Your task to perform on an android device: Search for pizza restaurants on Maps Image 0: 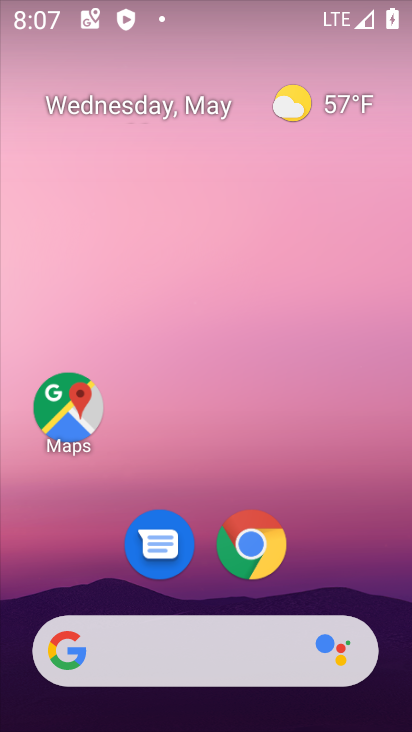
Step 0: drag from (330, 528) to (254, 17)
Your task to perform on an android device: Search for pizza restaurants on Maps Image 1: 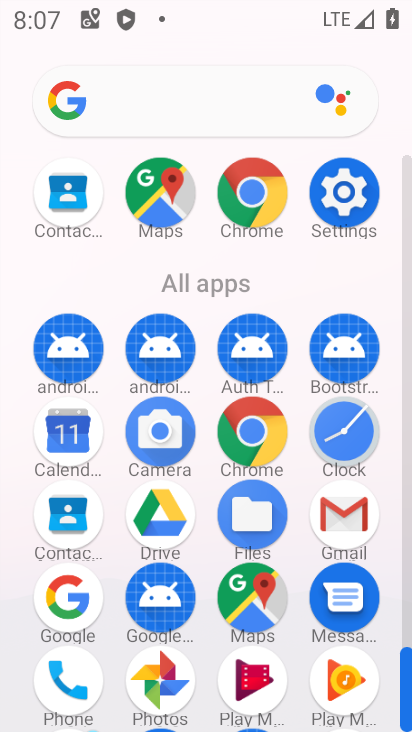
Step 1: drag from (3, 559) to (0, 152)
Your task to perform on an android device: Search for pizza restaurants on Maps Image 2: 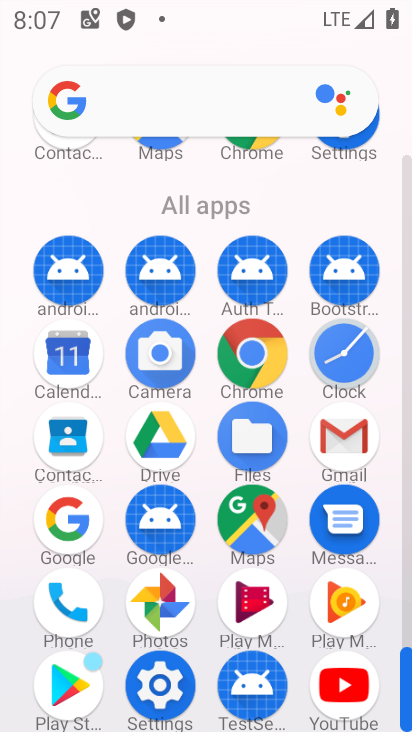
Step 2: click (250, 519)
Your task to perform on an android device: Search for pizza restaurants on Maps Image 3: 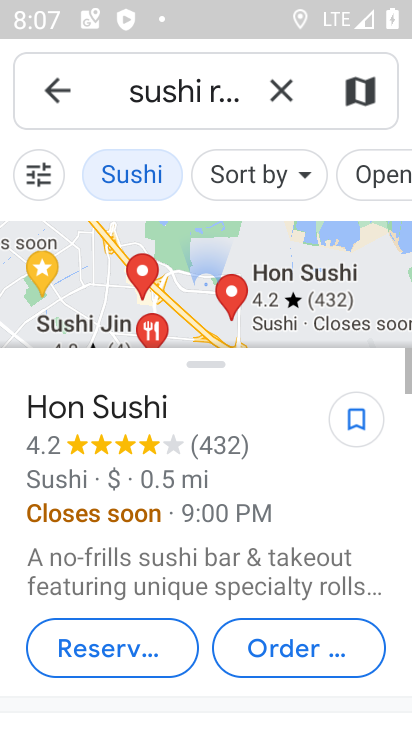
Step 3: click (280, 94)
Your task to perform on an android device: Search for pizza restaurants on Maps Image 4: 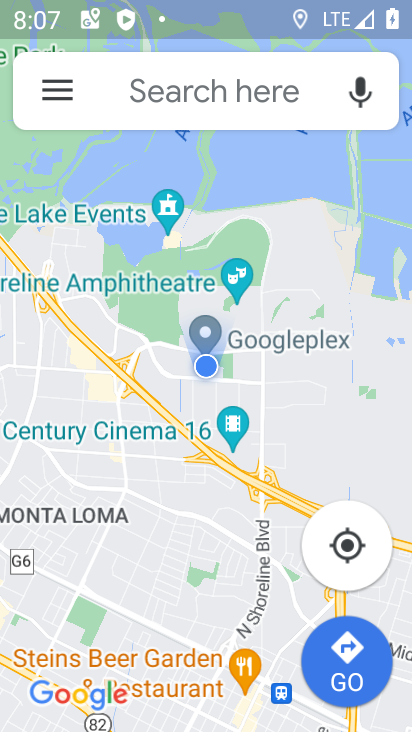
Step 4: click (308, 89)
Your task to perform on an android device: Search for pizza restaurants on Maps Image 5: 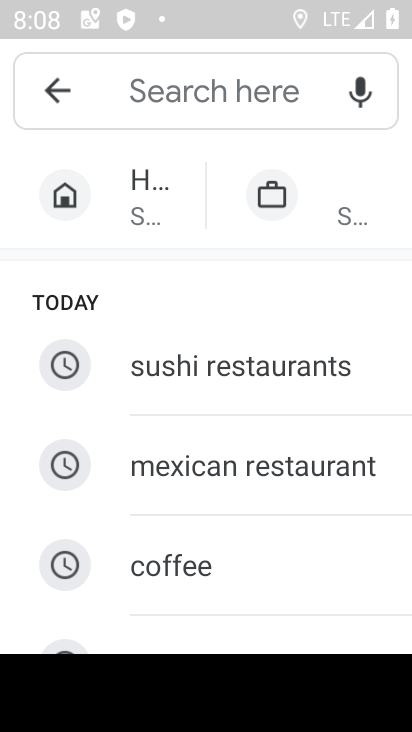
Step 5: type " pizza restaurants"
Your task to perform on an android device: Search for pizza restaurants on Maps Image 6: 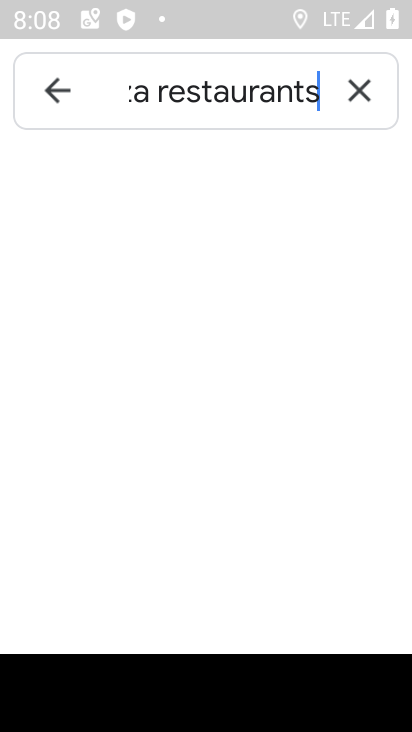
Step 6: type ""
Your task to perform on an android device: Search for pizza restaurants on Maps Image 7: 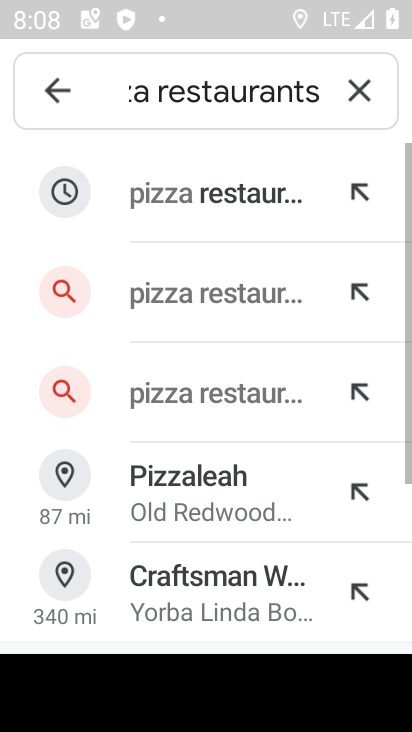
Step 7: click (177, 202)
Your task to perform on an android device: Search for pizza restaurants on Maps Image 8: 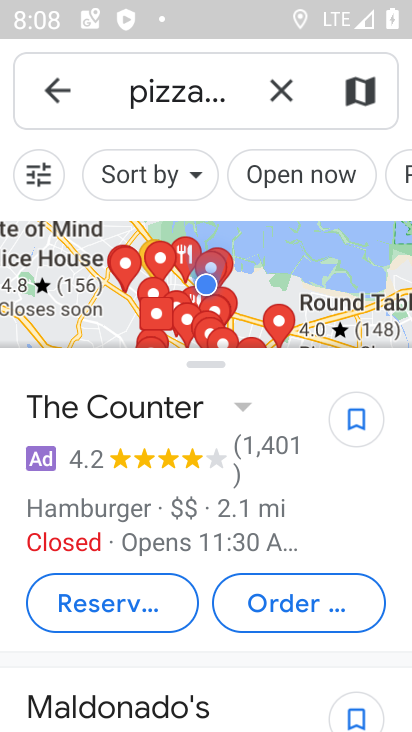
Step 8: task complete